Your task to perform on an android device: Open Reddit.com Image 0: 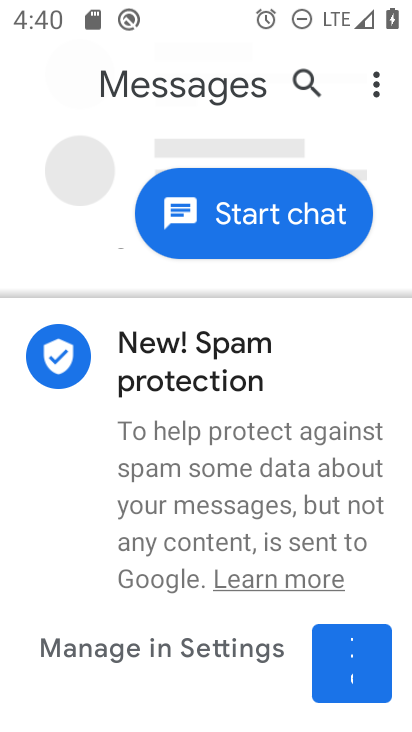
Step 0: press home button
Your task to perform on an android device: Open Reddit.com Image 1: 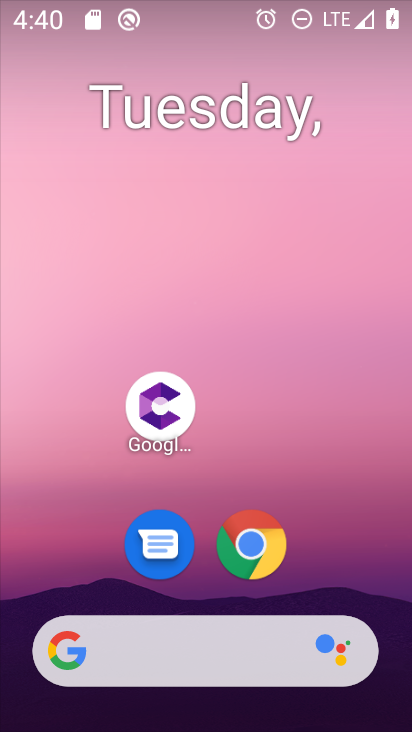
Step 1: drag from (359, 568) to (371, 120)
Your task to perform on an android device: Open Reddit.com Image 2: 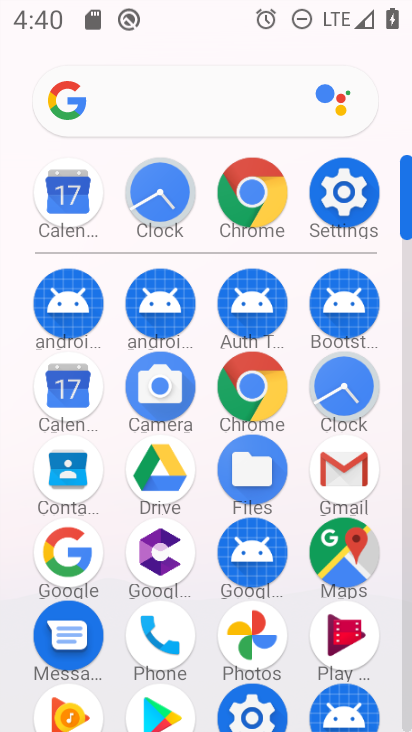
Step 2: click (267, 395)
Your task to perform on an android device: Open Reddit.com Image 3: 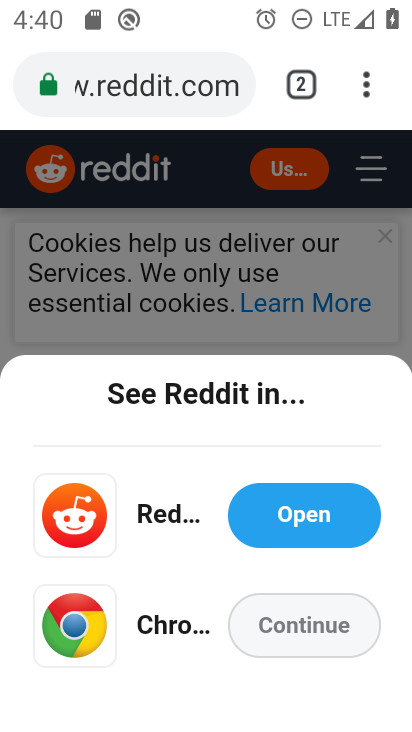
Step 3: task complete